Your task to perform on an android device: Go to internet settings Image 0: 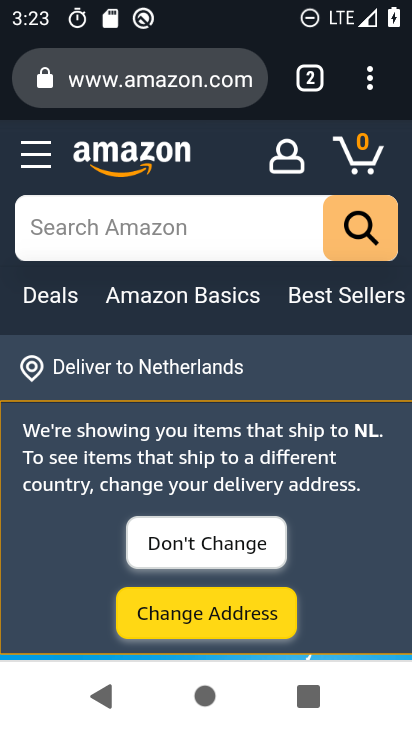
Step 0: press back button
Your task to perform on an android device: Go to internet settings Image 1: 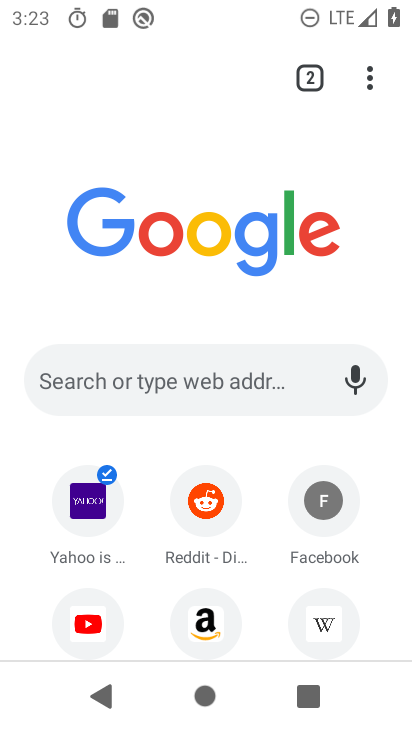
Step 1: press back button
Your task to perform on an android device: Go to internet settings Image 2: 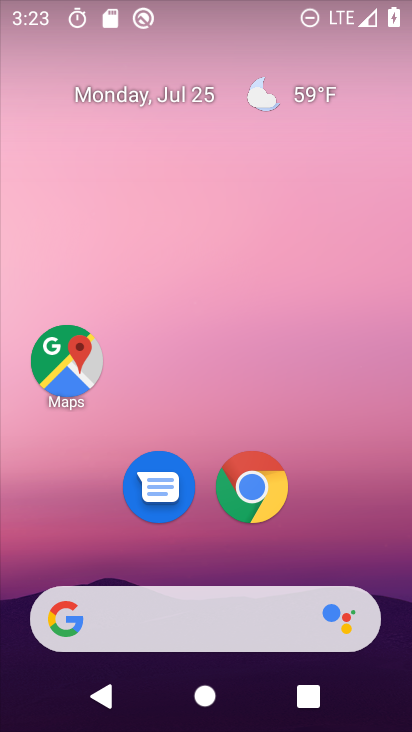
Step 2: drag from (135, 551) to (280, 31)
Your task to perform on an android device: Go to internet settings Image 3: 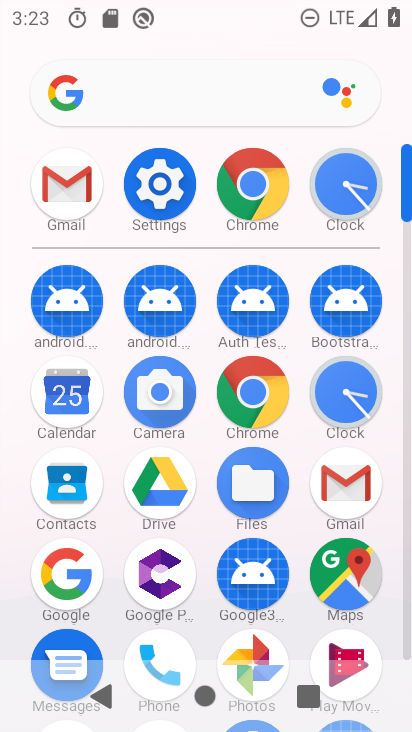
Step 3: click (180, 182)
Your task to perform on an android device: Go to internet settings Image 4: 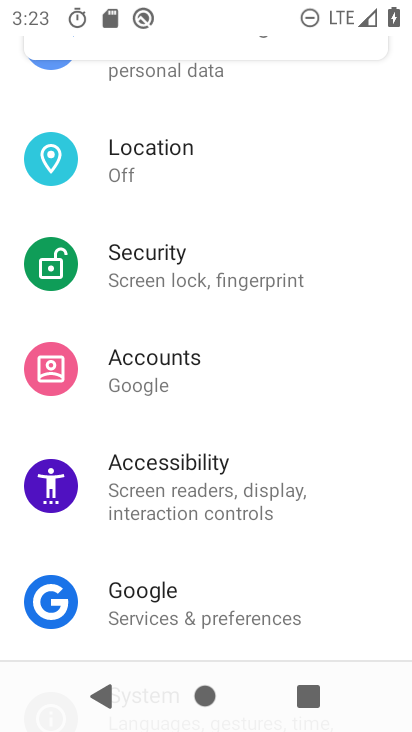
Step 4: drag from (261, 206) to (190, 725)
Your task to perform on an android device: Go to internet settings Image 5: 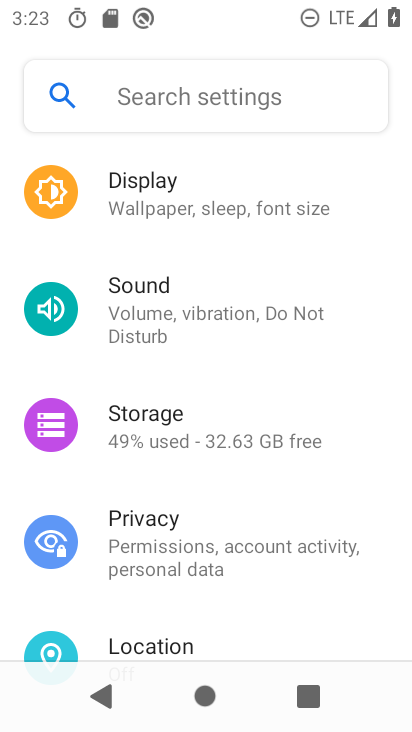
Step 5: drag from (228, 226) to (141, 696)
Your task to perform on an android device: Go to internet settings Image 6: 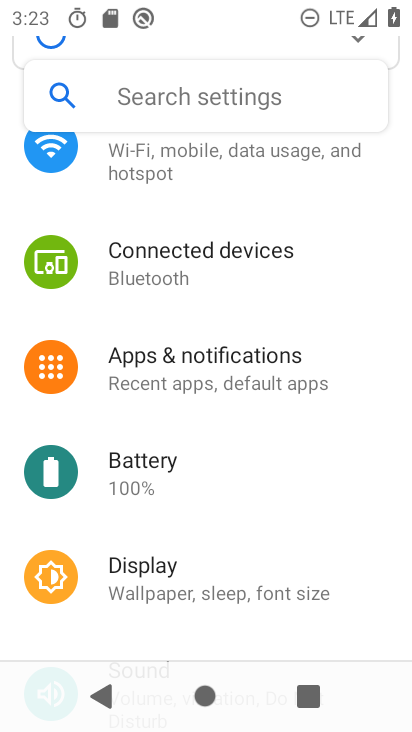
Step 6: drag from (230, 206) to (229, 611)
Your task to perform on an android device: Go to internet settings Image 7: 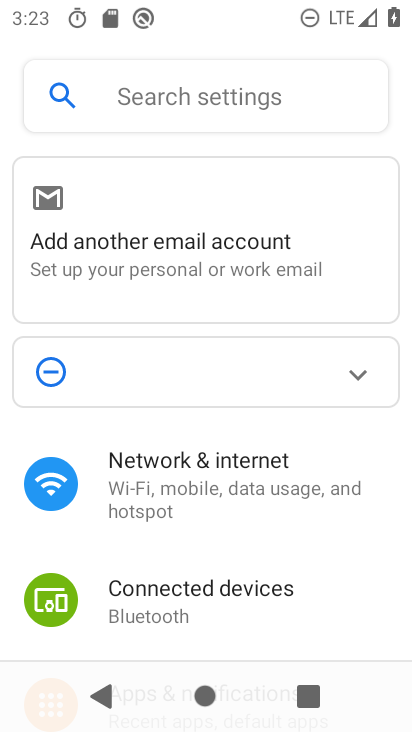
Step 7: click (206, 485)
Your task to perform on an android device: Go to internet settings Image 8: 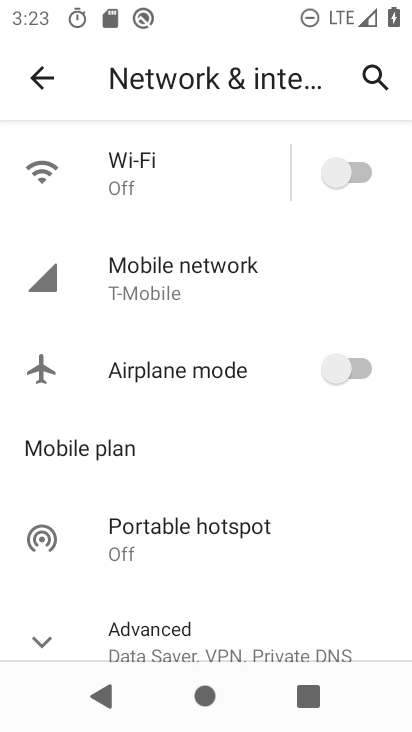
Step 8: task complete